Your task to perform on an android device: Show me recent news Image 0: 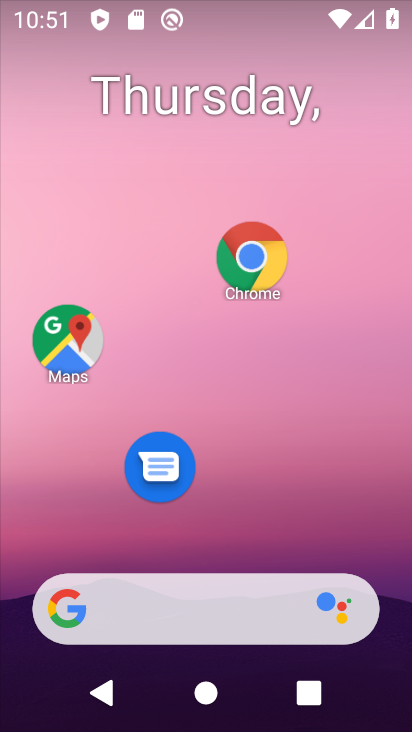
Step 0: click (248, 269)
Your task to perform on an android device: Show me recent news Image 1: 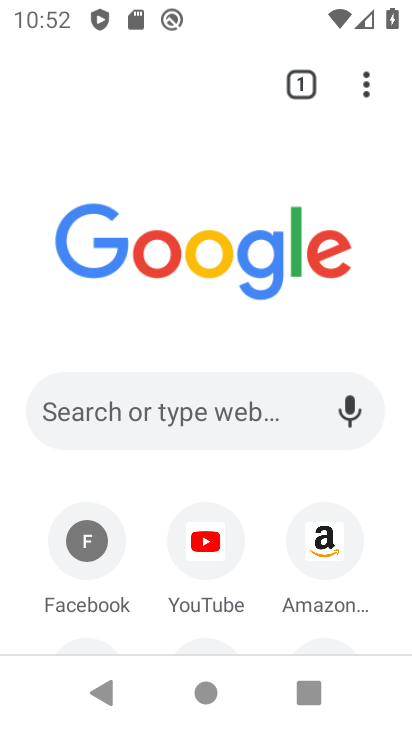
Step 1: click (77, 411)
Your task to perform on an android device: Show me recent news Image 2: 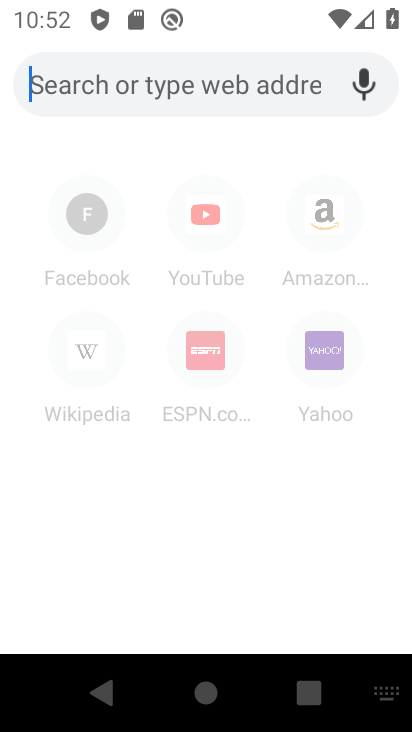
Step 2: type "recent news"
Your task to perform on an android device: Show me recent news Image 3: 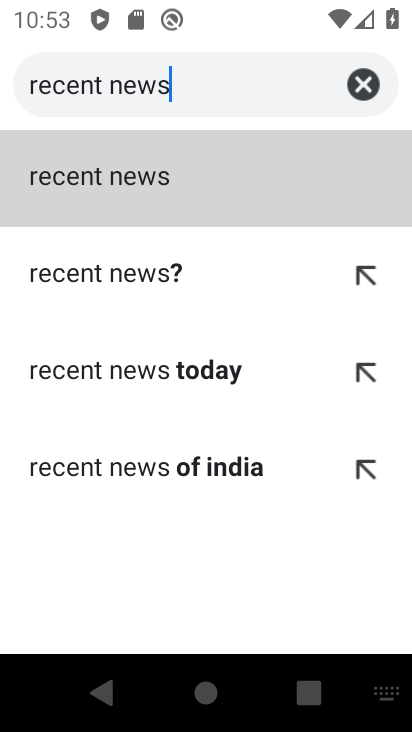
Step 3: click (88, 150)
Your task to perform on an android device: Show me recent news Image 4: 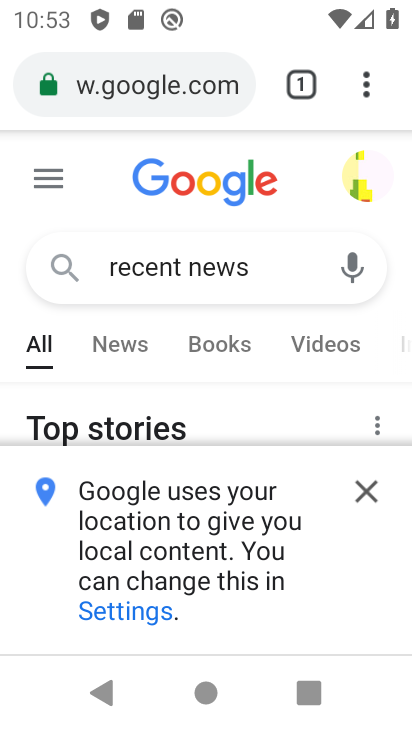
Step 4: task complete